Your task to perform on an android device: Show me productivity apps on the Play Store Image 0: 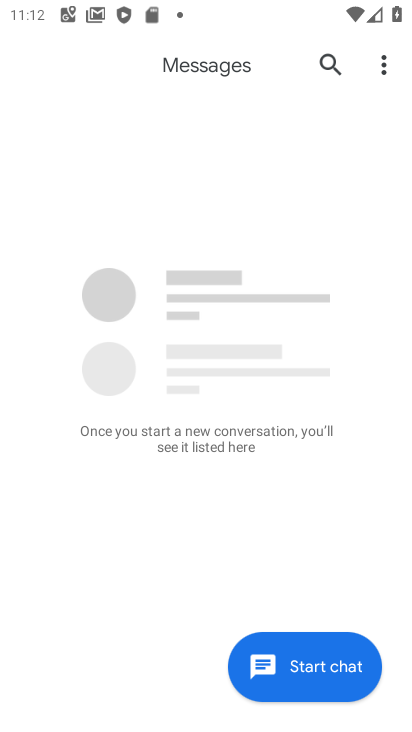
Step 0: drag from (0, 351) to (46, 312)
Your task to perform on an android device: Show me productivity apps on the Play Store Image 1: 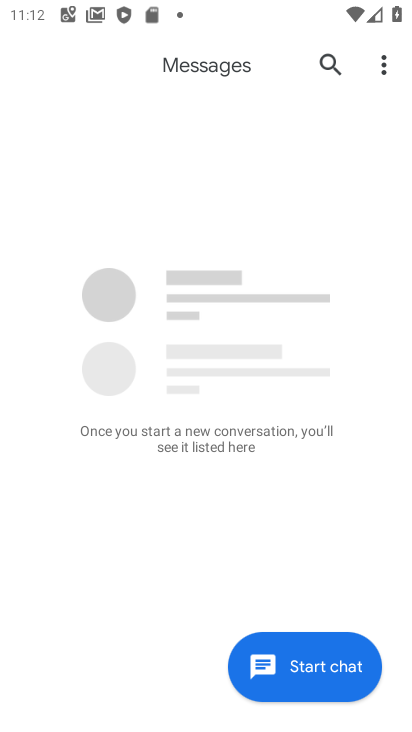
Step 1: press home button
Your task to perform on an android device: Show me productivity apps on the Play Store Image 2: 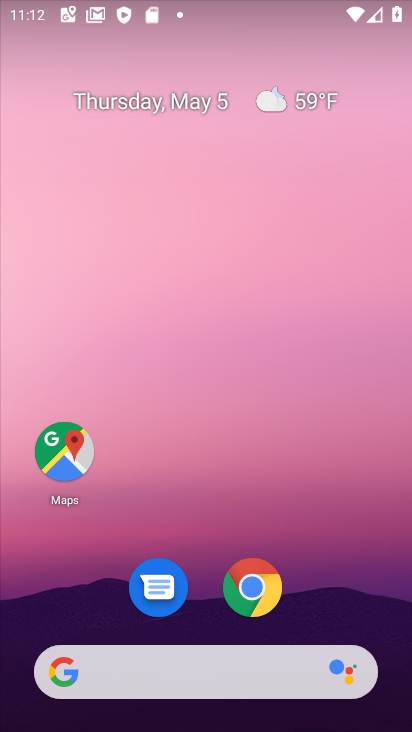
Step 2: drag from (84, 627) to (196, 102)
Your task to perform on an android device: Show me productivity apps on the Play Store Image 3: 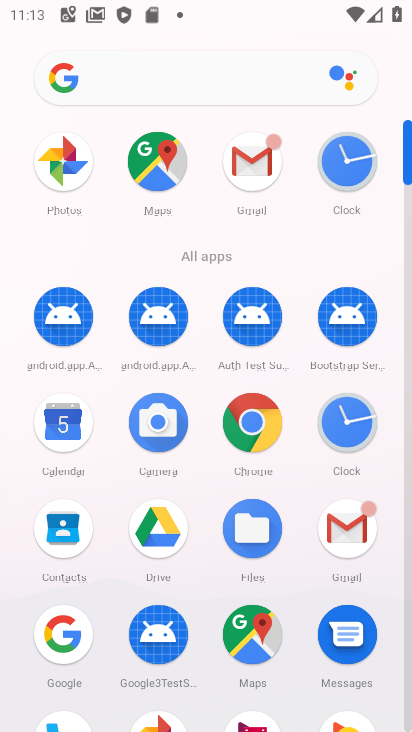
Step 3: drag from (134, 661) to (248, 258)
Your task to perform on an android device: Show me productivity apps on the Play Store Image 4: 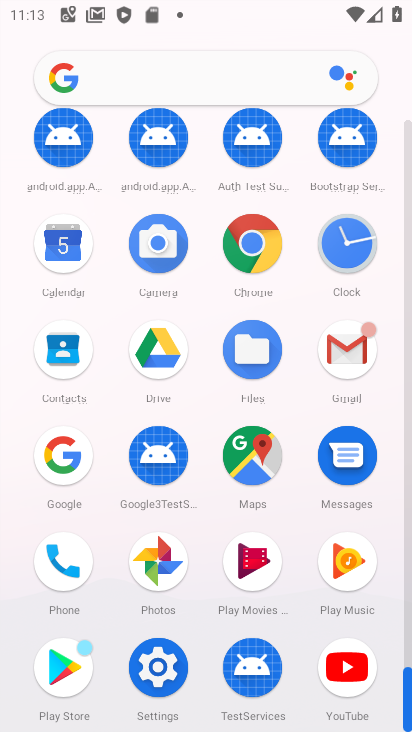
Step 4: click (53, 680)
Your task to perform on an android device: Show me productivity apps on the Play Store Image 5: 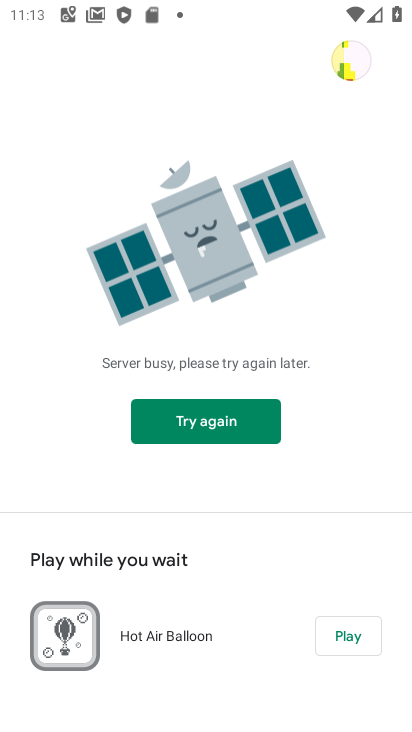
Step 5: task complete